Your task to perform on an android device: Go to eBay Image 0: 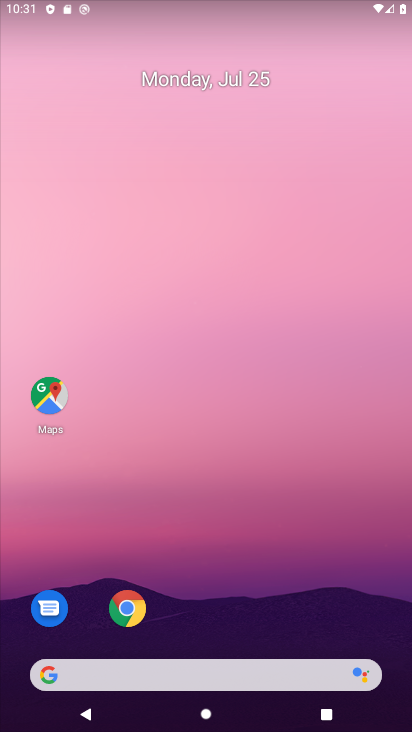
Step 0: drag from (175, 569) to (117, 154)
Your task to perform on an android device: Go to eBay Image 1: 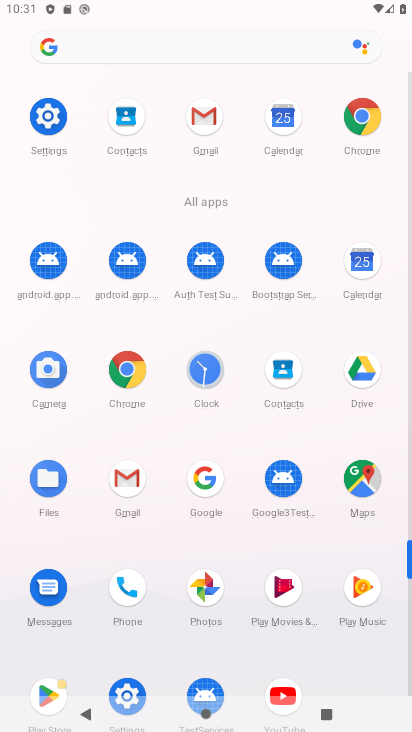
Step 1: click (279, 165)
Your task to perform on an android device: Go to eBay Image 2: 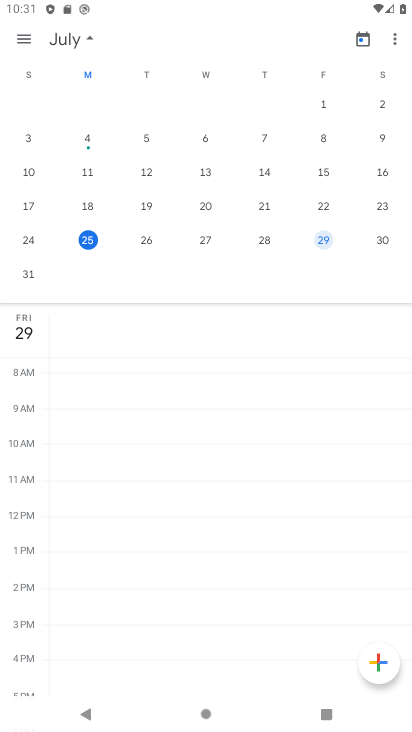
Step 2: press back button
Your task to perform on an android device: Go to eBay Image 3: 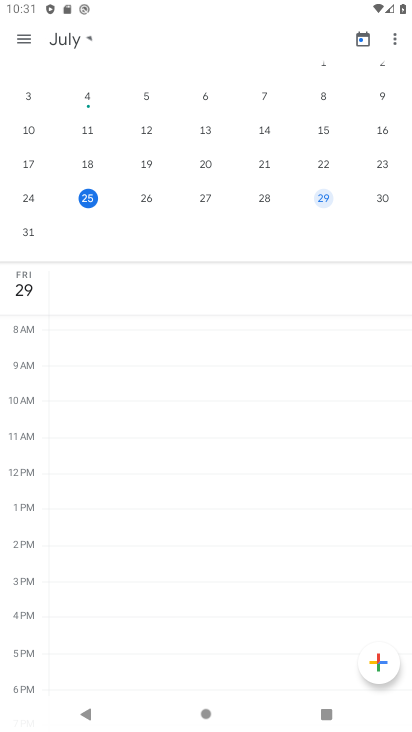
Step 3: press back button
Your task to perform on an android device: Go to eBay Image 4: 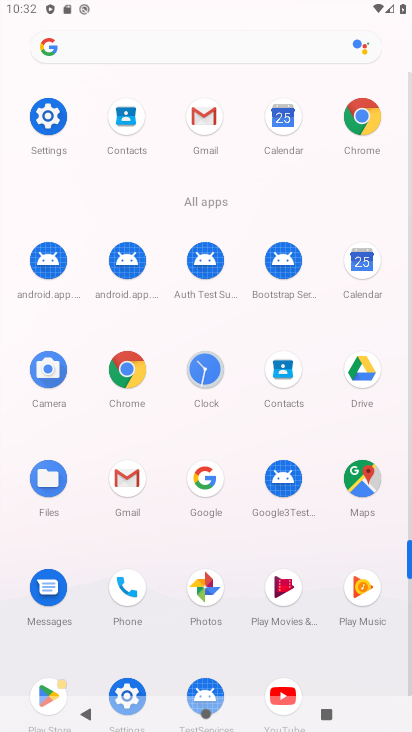
Step 4: click (366, 111)
Your task to perform on an android device: Go to eBay Image 5: 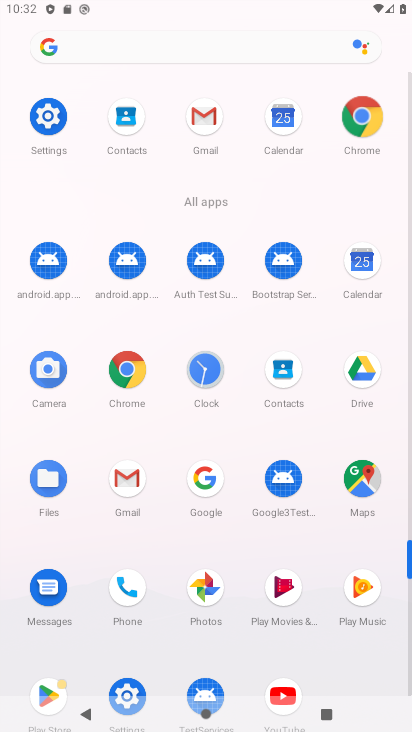
Step 5: click (362, 111)
Your task to perform on an android device: Go to eBay Image 6: 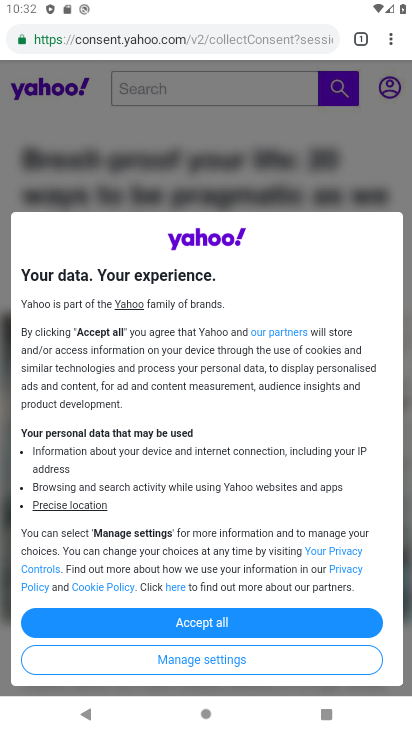
Step 6: drag from (384, 42) to (237, 73)
Your task to perform on an android device: Go to eBay Image 7: 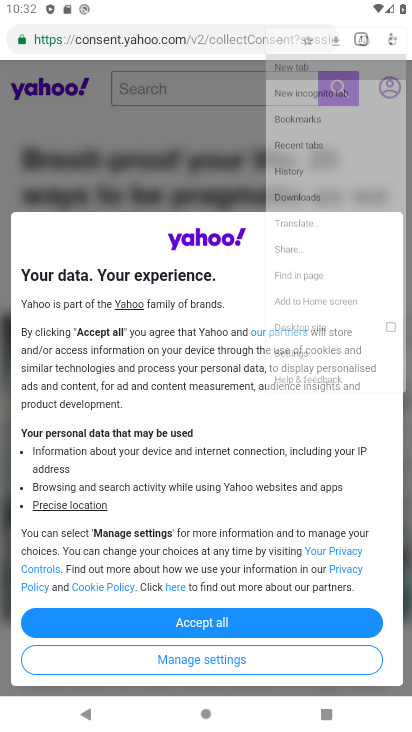
Step 7: click (234, 78)
Your task to perform on an android device: Go to eBay Image 8: 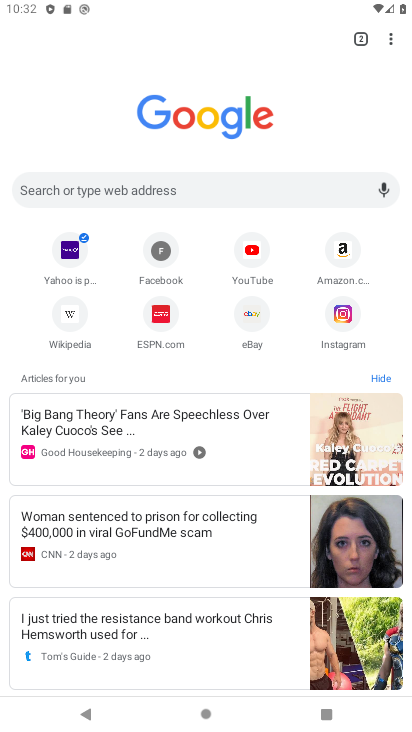
Step 8: click (254, 332)
Your task to perform on an android device: Go to eBay Image 9: 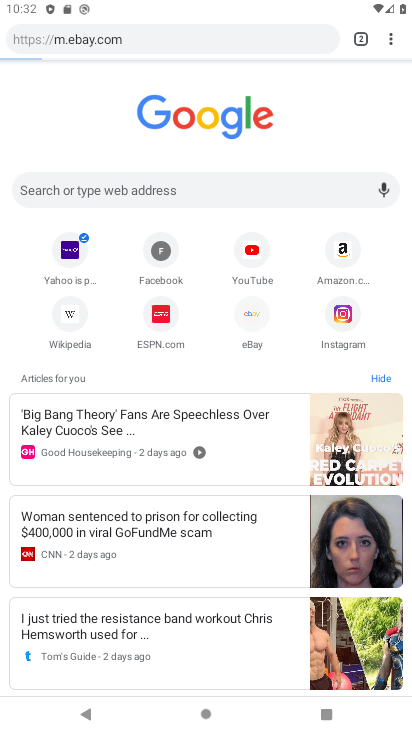
Step 9: click (254, 330)
Your task to perform on an android device: Go to eBay Image 10: 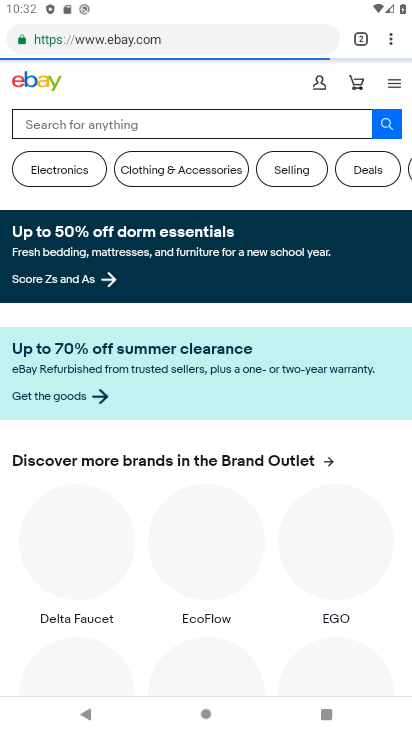
Step 10: task complete